Your task to perform on an android device: open a new tab in the chrome app Image 0: 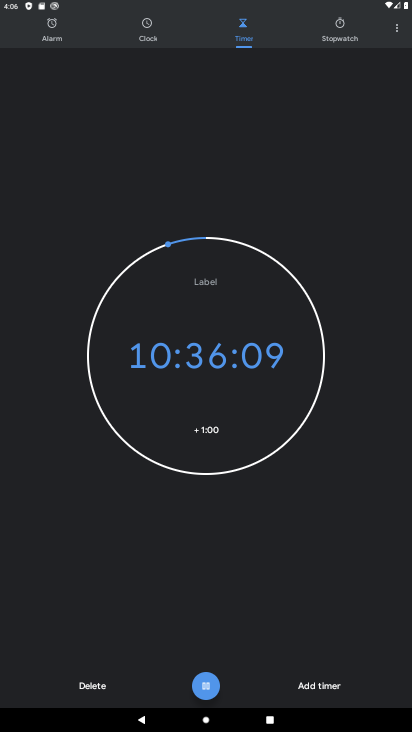
Step 0: press home button
Your task to perform on an android device: open a new tab in the chrome app Image 1: 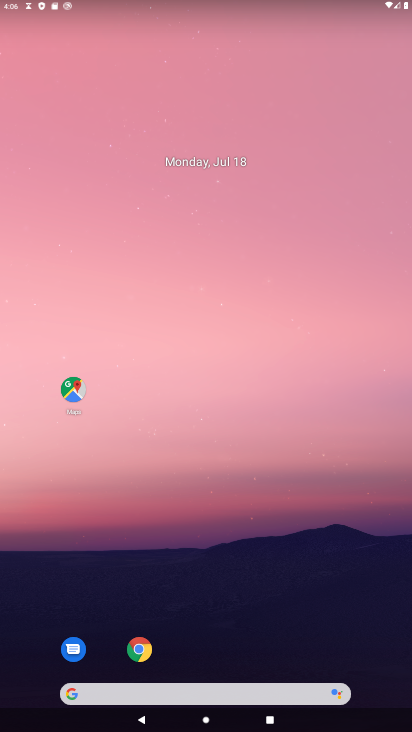
Step 1: press home button
Your task to perform on an android device: open a new tab in the chrome app Image 2: 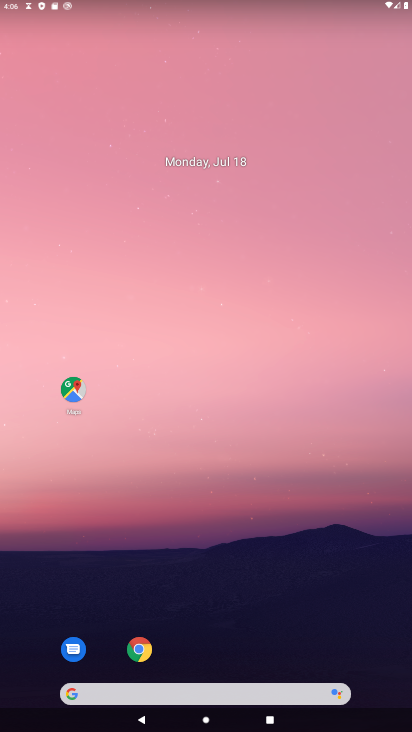
Step 2: click (135, 643)
Your task to perform on an android device: open a new tab in the chrome app Image 3: 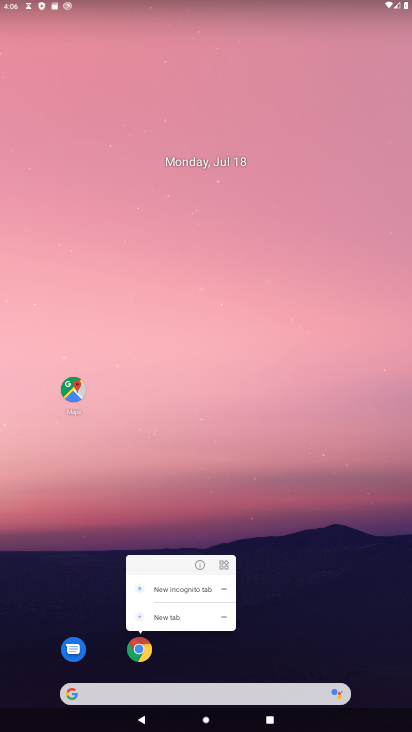
Step 3: click (136, 642)
Your task to perform on an android device: open a new tab in the chrome app Image 4: 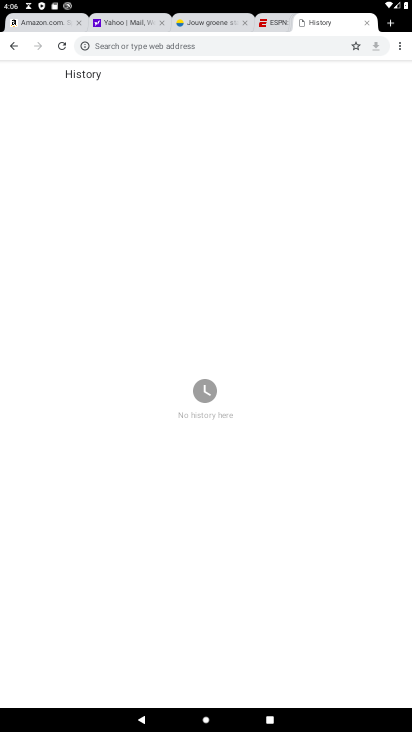
Step 4: click (392, 23)
Your task to perform on an android device: open a new tab in the chrome app Image 5: 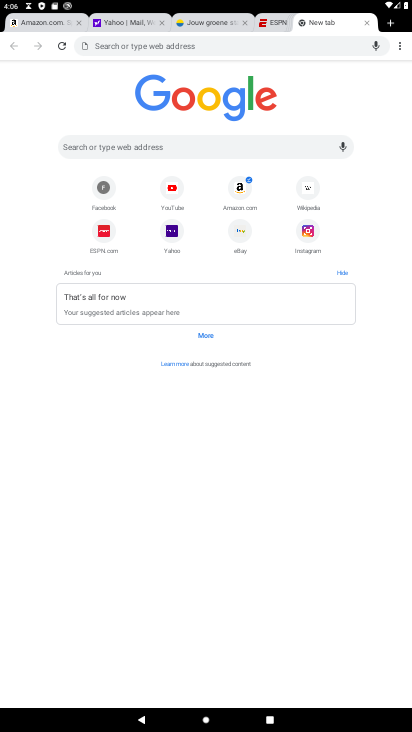
Step 5: task complete